Your task to perform on an android device: turn vacation reply on in the gmail app Image 0: 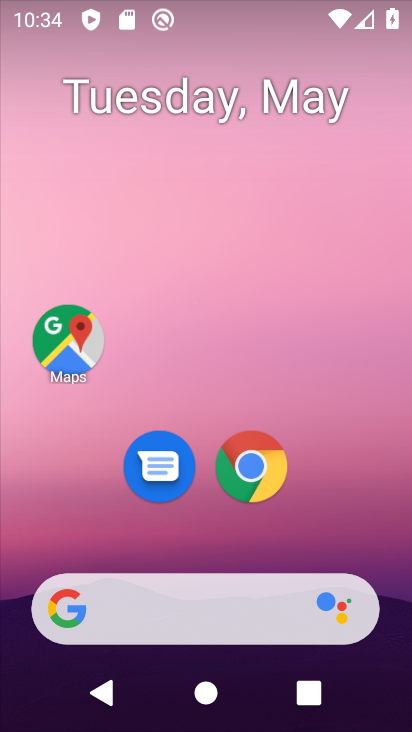
Step 0: drag from (205, 563) to (198, 195)
Your task to perform on an android device: turn vacation reply on in the gmail app Image 1: 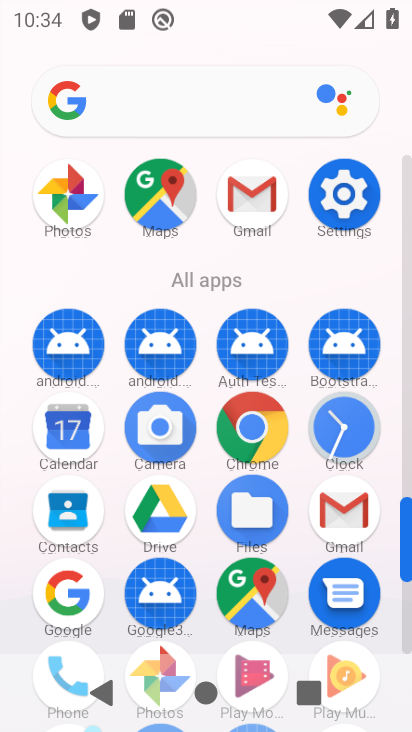
Step 1: click (253, 205)
Your task to perform on an android device: turn vacation reply on in the gmail app Image 2: 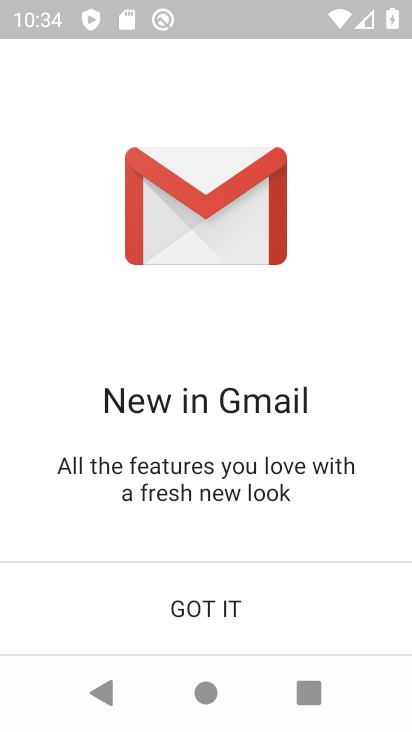
Step 2: click (232, 606)
Your task to perform on an android device: turn vacation reply on in the gmail app Image 3: 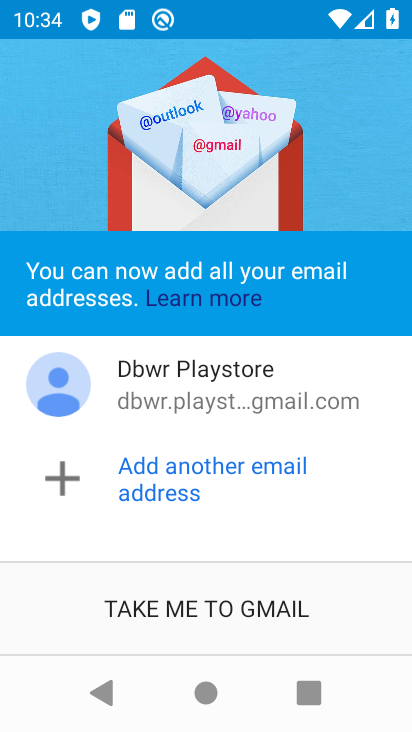
Step 3: click (232, 606)
Your task to perform on an android device: turn vacation reply on in the gmail app Image 4: 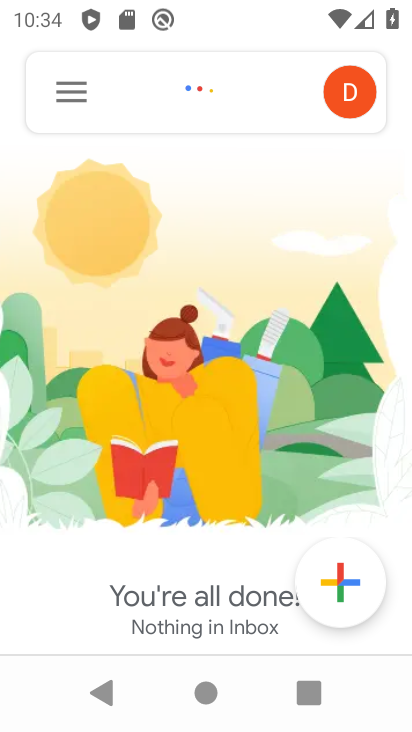
Step 4: drag from (208, 617) to (208, 232)
Your task to perform on an android device: turn vacation reply on in the gmail app Image 5: 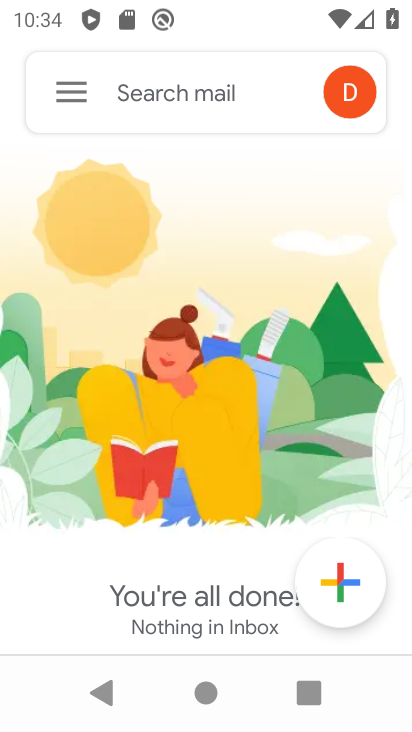
Step 5: click (48, 83)
Your task to perform on an android device: turn vacation reply on in the gmail app Image 6: 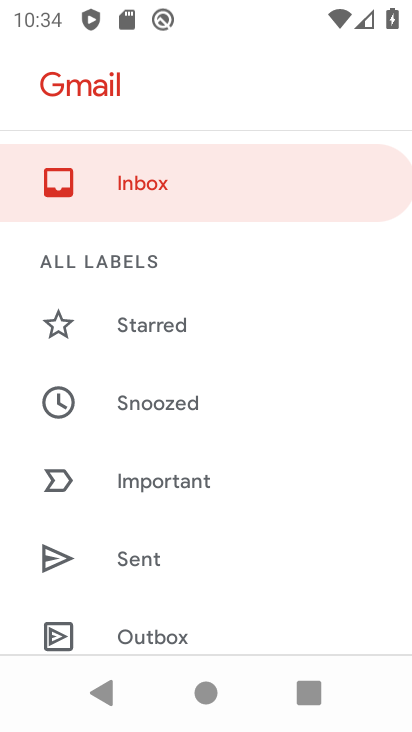
Step 6: drag from (168, 529) to (168, 328)
Your task to perform on an android device: turn vacation reply on in the gmail app Image 7: 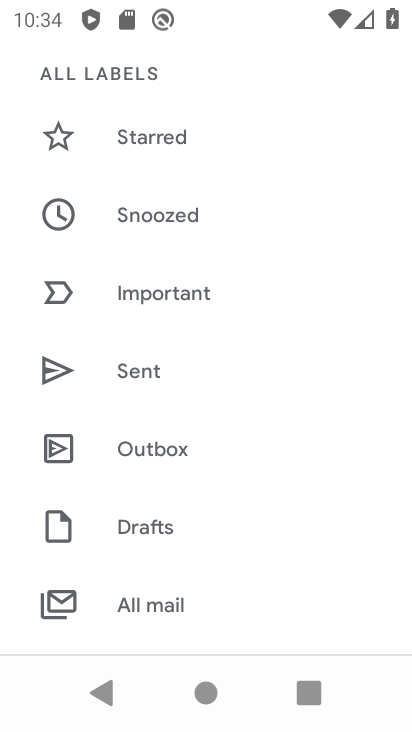
Step 7: drag from (179, 618) to (169, 282)
Your task to perform on an android device: turn vacation reply on in the gmail app Image 8: 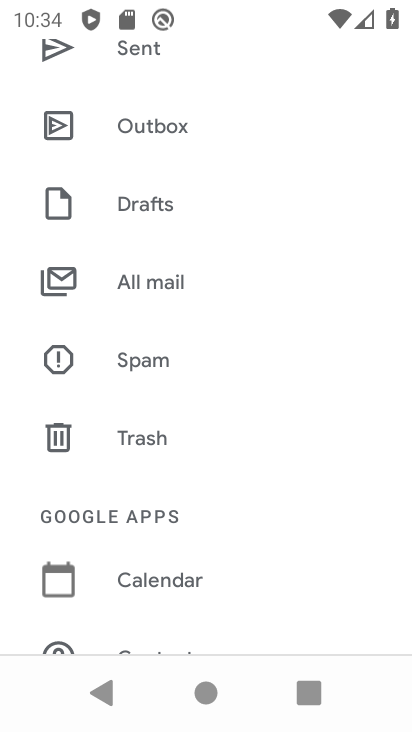
Step 8: drag from (188, 625) to (188, 309)
Your task to perform on an android device: turn vacation reply on in the gmail app Image 9: 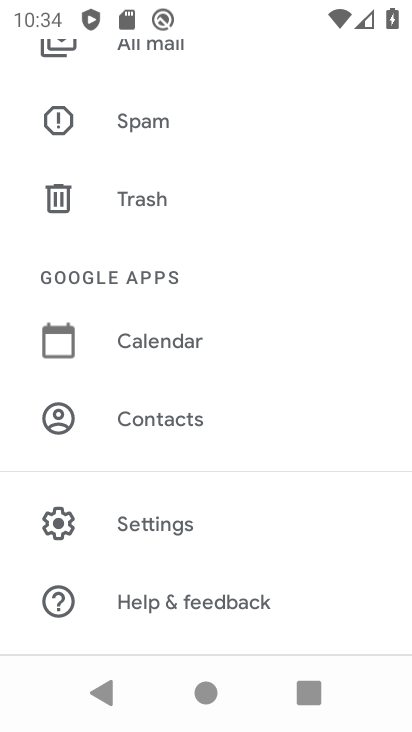
Step 9: click (179, 528)
Your task to perform on an android device: turn vacation reply on in the gmail app Image 10: 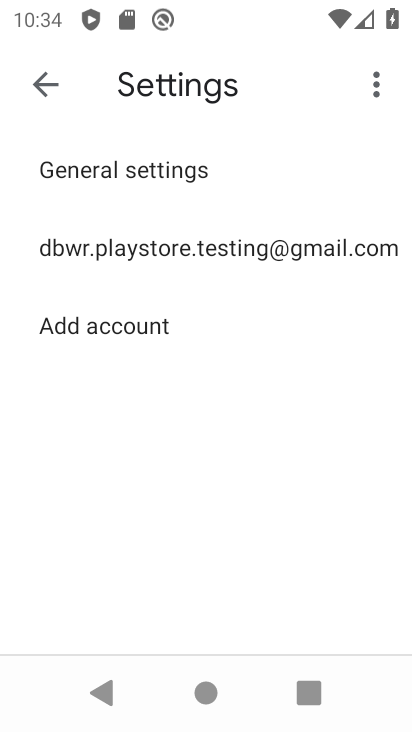
Step 10: click (111, 245)
Your task to perform on an android device: turn vacation reply on in the gmail app Image 11: 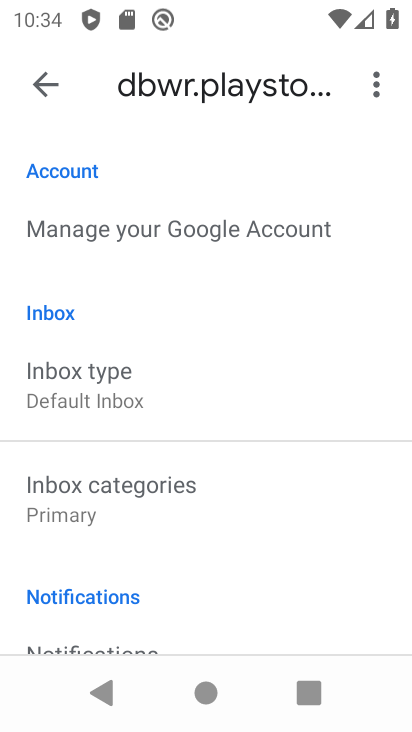
Step 11: drag from (151, 654) to (152, 303)
Your task to perform on an android device: turn vacation reply on in the gmail app Image 12: 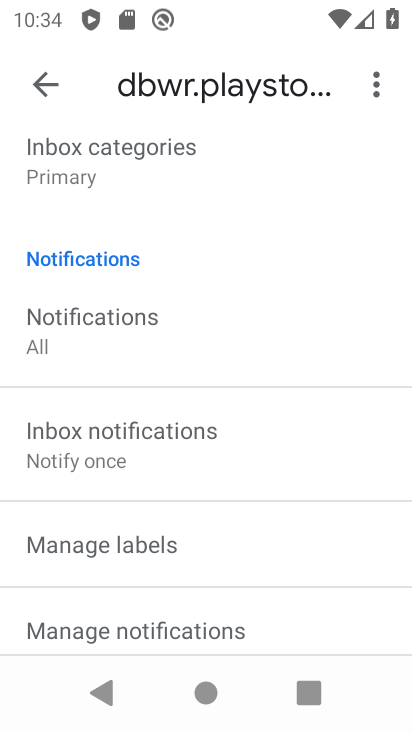
Step 12: drag from (181, 639) to (177, 287)
Your task to perform on an android device: turn vacation reply on in the gmail app Image 13: 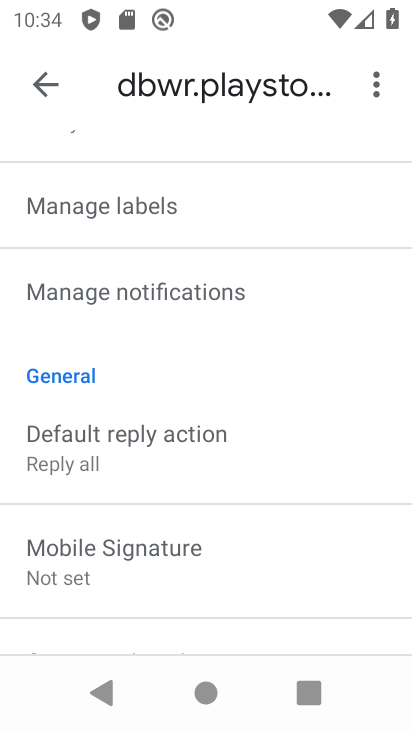
Step 13: drag from (167, 605) to (172, 277)
Your task to perform on an android device: turn vacation reply on in the gmail app Image 14: 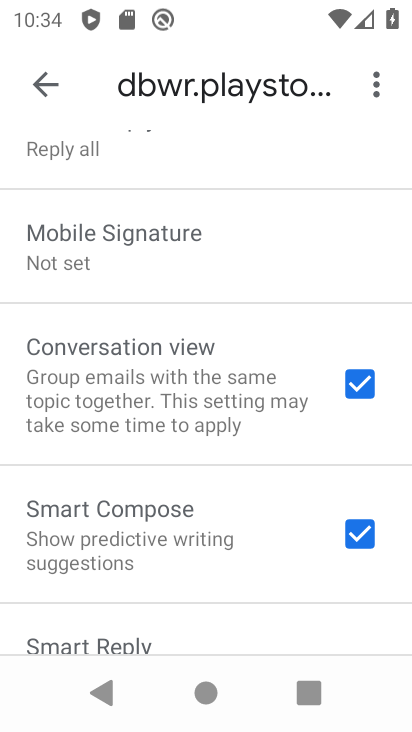
Step 14: drag from (197, 623) to (214, 337)
Your task to perform on an android device: turn vacation reply on in the gmail app Image 15: 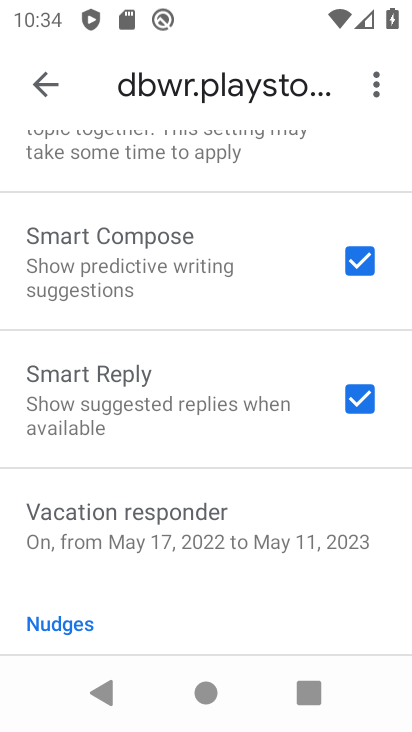
Step 15: click (134, 518)
Your task to perform on an android device: turn vacation reply on in the gmail app Image 16: 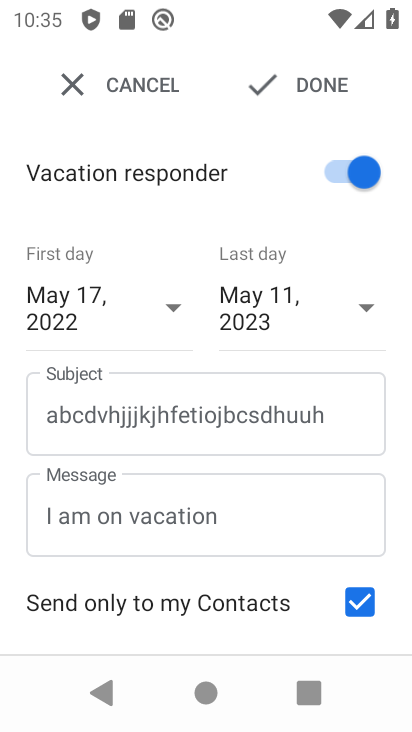
Step 16: click (312, 87)
Your task to perform on an android device: turn vacation reply on in the gmail app Image 17: 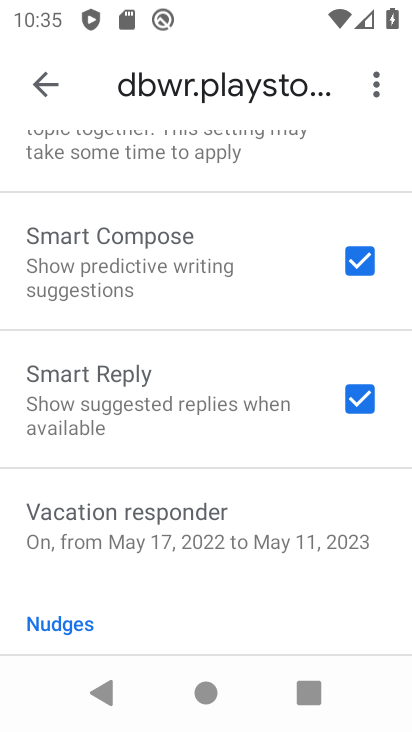
Step 17: task complete